Your task to perform on an android device: uninstall "YouTube Kids" Image 0: 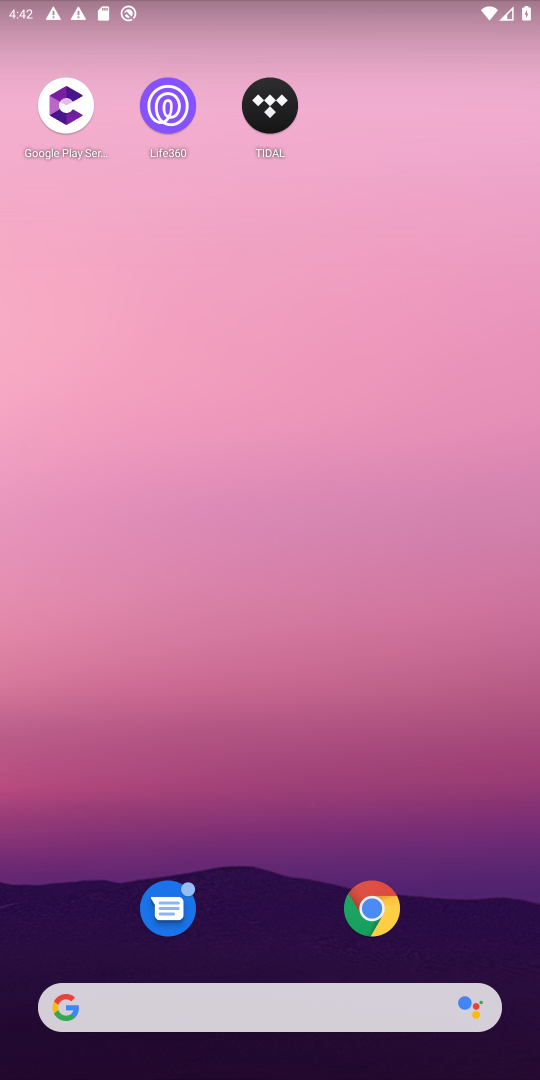
Step 0: click (319, 4)
Your task to perform on an android device: uninstall "YouTube Kids" Image 1: 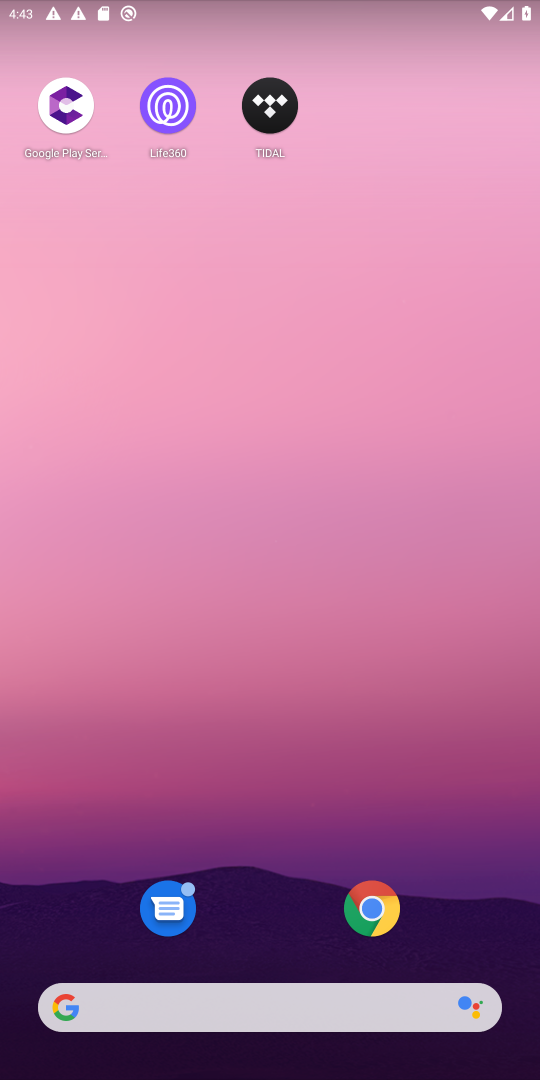
Step 1: drag from (281, 693) to (344, 27)
Your task to perform on an android device: uninstall "YouTube Kids" Image 2: 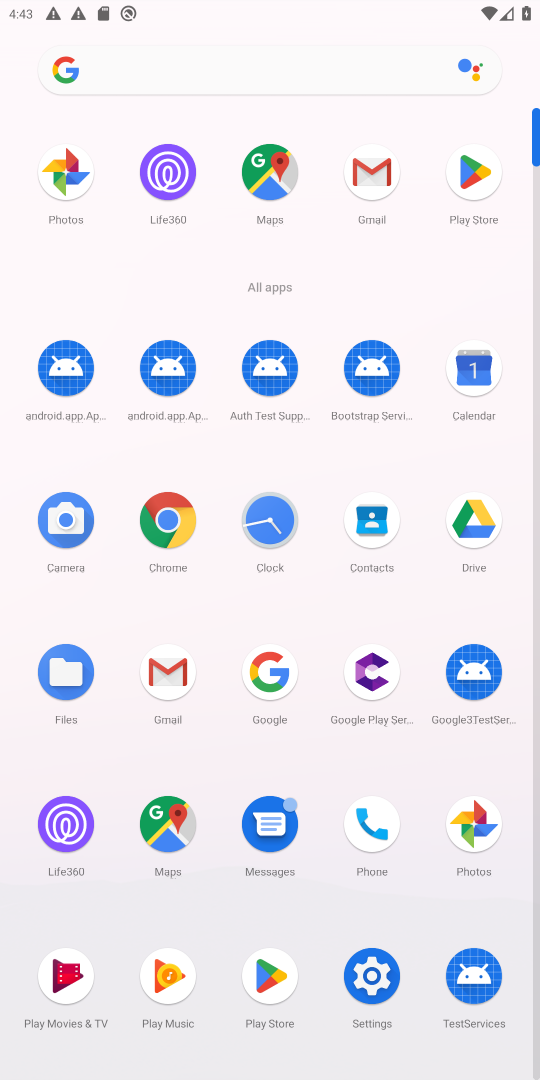
Step 2: click (470, 183)
Your task to perform on an android device: uninstall "YouTube Kids" Image 3: 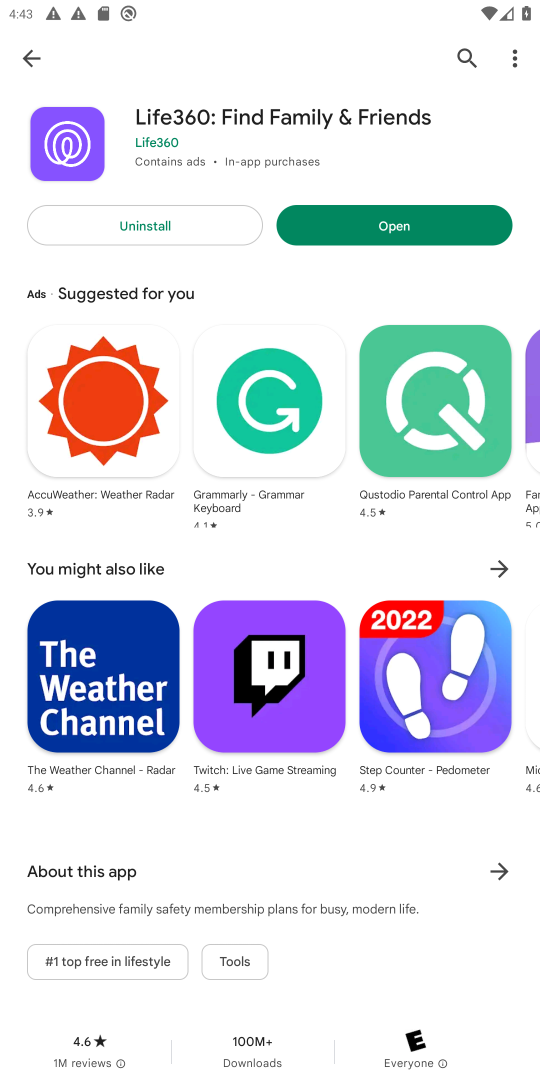
Step 3: click (24, 55)
Your task to perform on an android device: uninstall "YouTube Kids" Image 4: 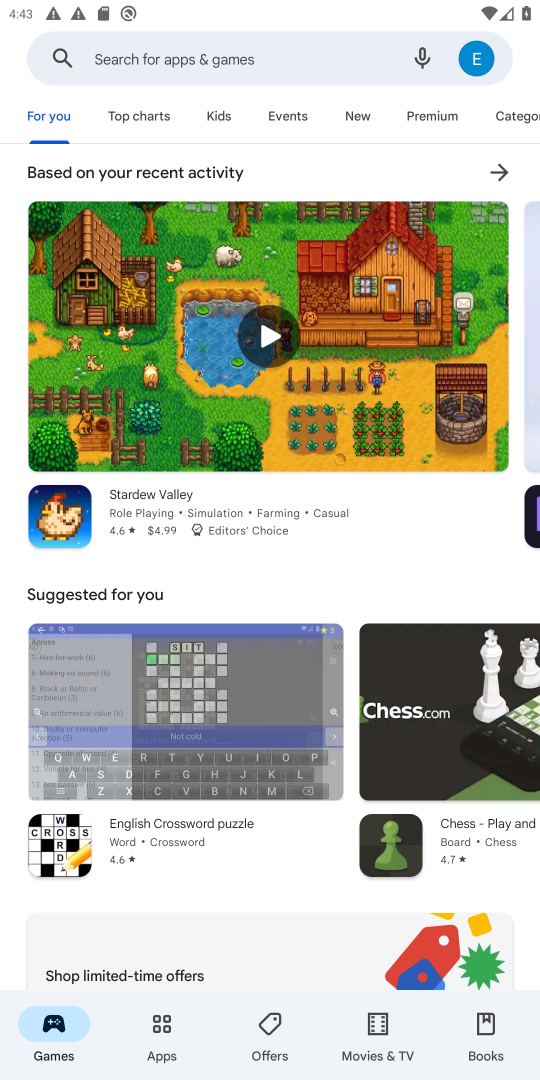
Step 4: click (170, 56)
Your task to perform on an android device: uninstall "YouTube Kids" Image 5: 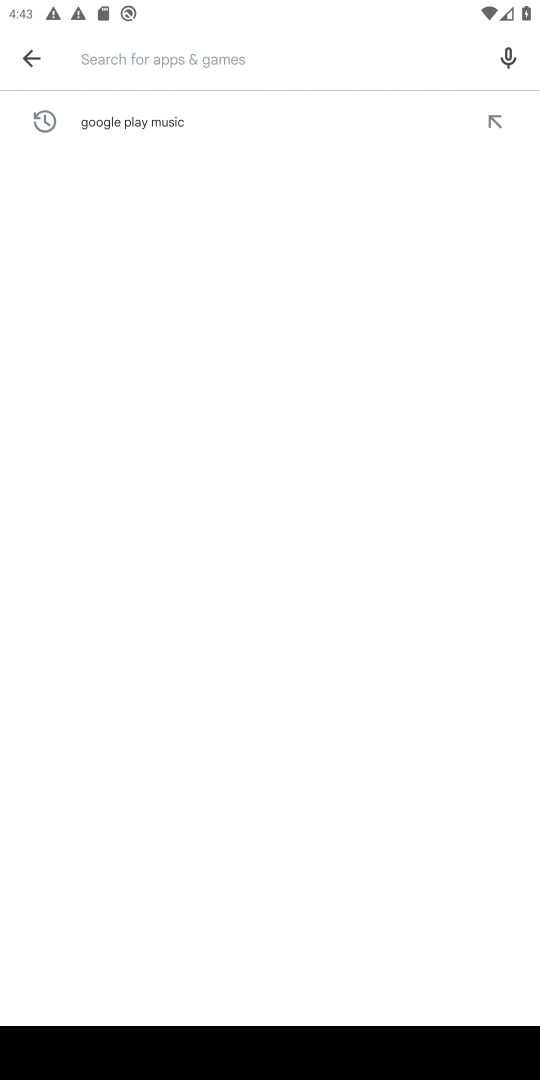
Step 5: type "youtube kids"
Your task to perform on an android device: uninstall "YouTube Kids" Image 6: 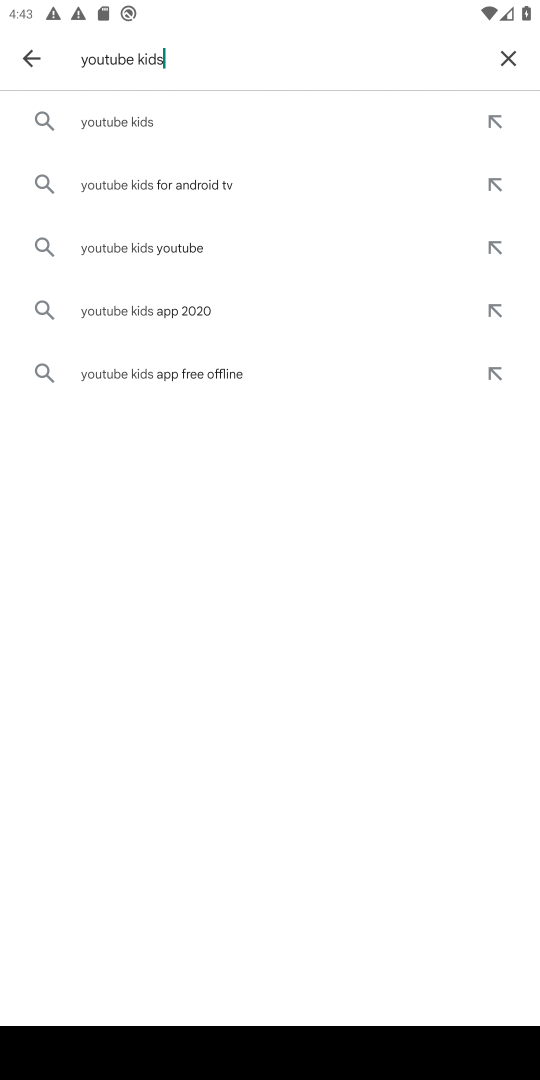
Step 6: click (104, 114)
Your task to perform on an android device: uninstall "YouTube Kids" Image 7: 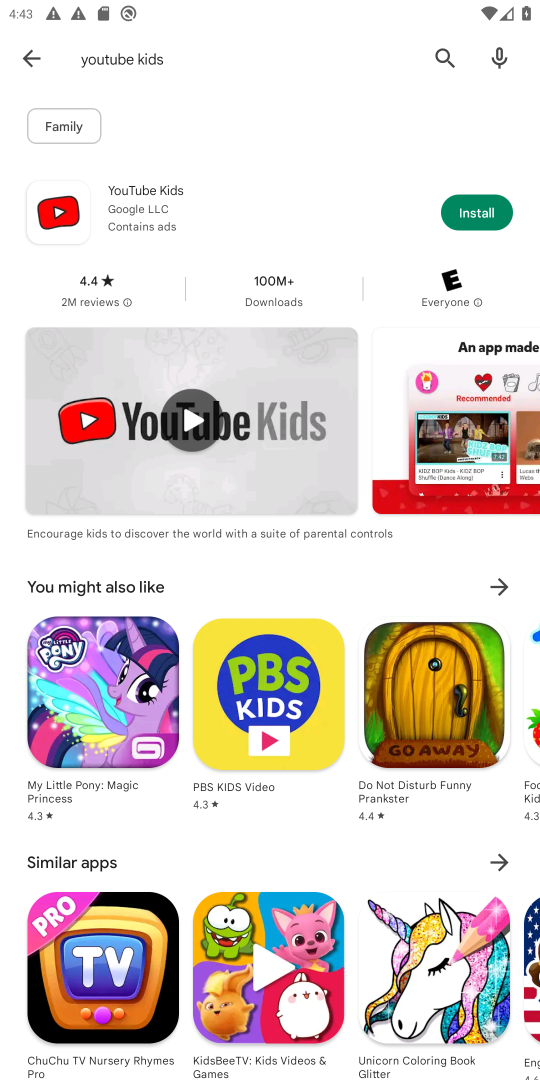
Step 7: task complete